Your task to perform on an android device: change the clock display to show seconds Image 0: 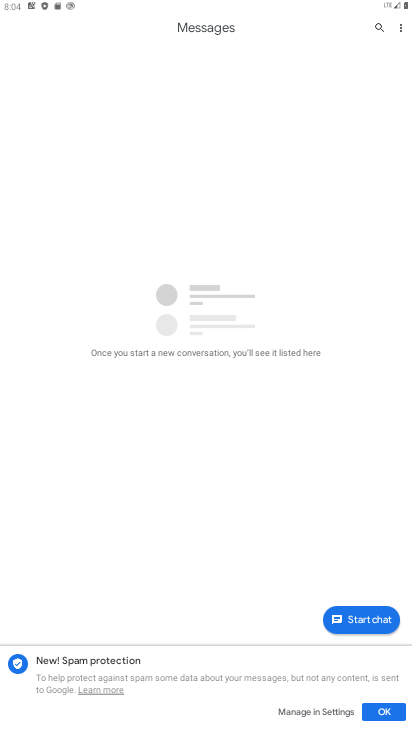
Step 0: press home button
Your task to perform on an android device: change the clock display to show seconds Image 1: 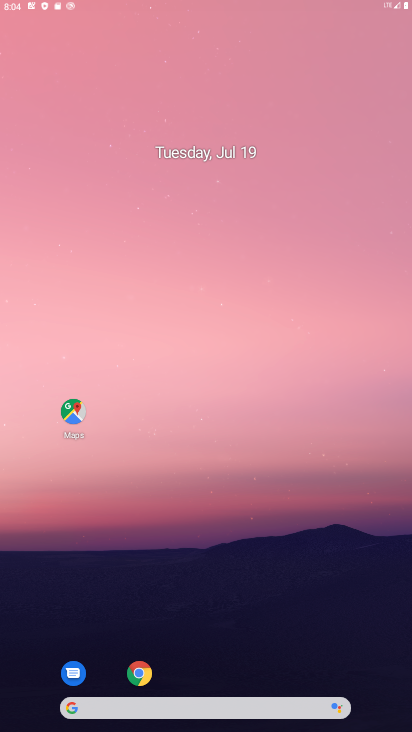
Step 1: drag from (392, 663) to (154, 63)
Your task to perform on an android device: change the clock display to show seconds Image 2: 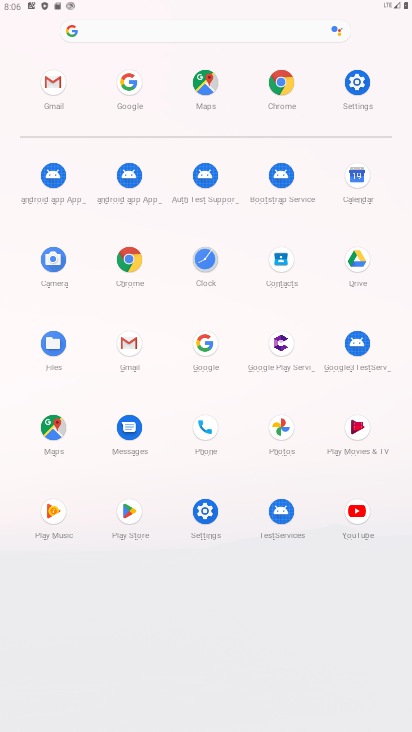
Step 2: click (206, 258)
Your task to perform on an android device: change the clock display to show seconds Image 3: 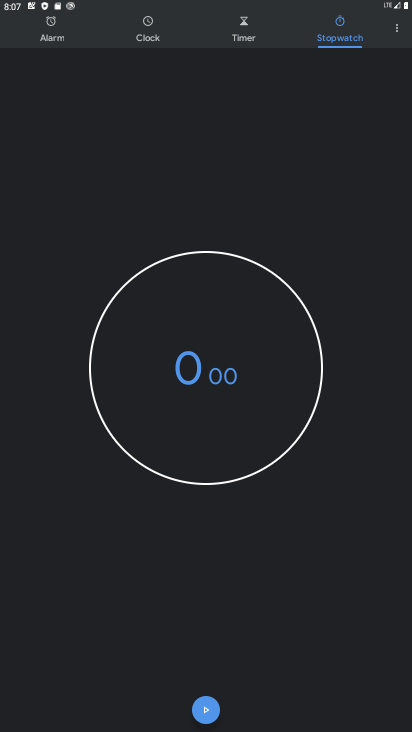
Step 3: click (395, 26)
Your task to perform on an android device: change the clock display to show seconds Image 4: 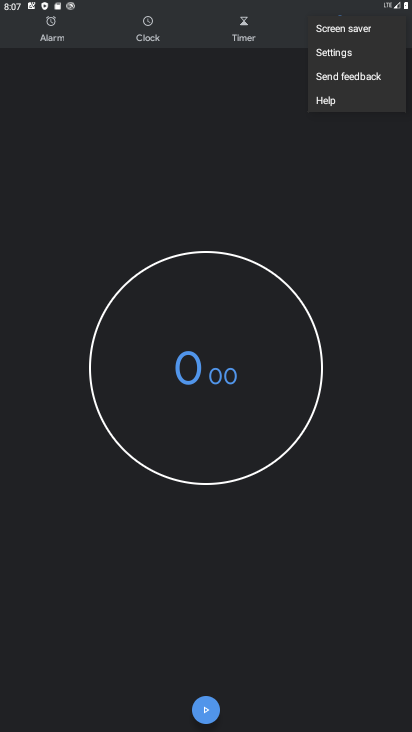
Step 4: click (332, 58)
Your task to perform on an android device: change the clock display to show seconds Image 5: 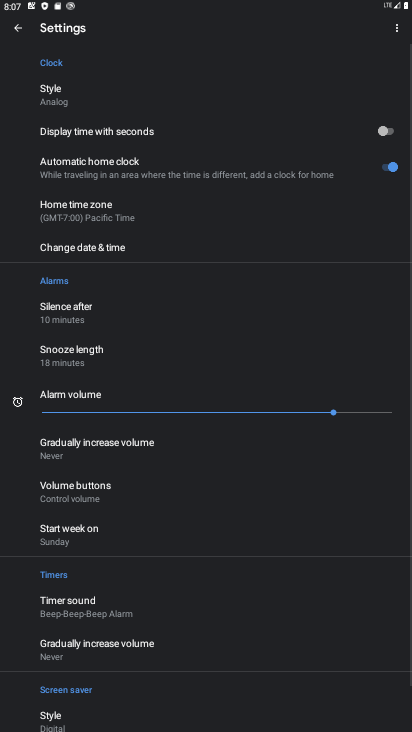
Step 5: click (381, 130)
Your task to perform on an android device: change the clock display to show seconds Image 6: 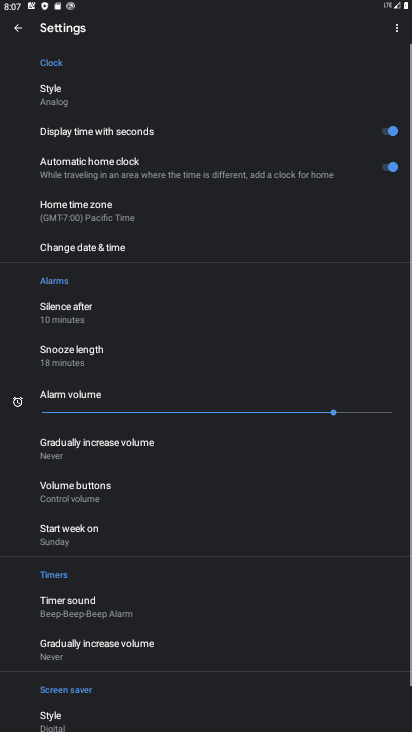
Step 6: task complete